Your task to perform on an android device: Go to battery settings Image 0: 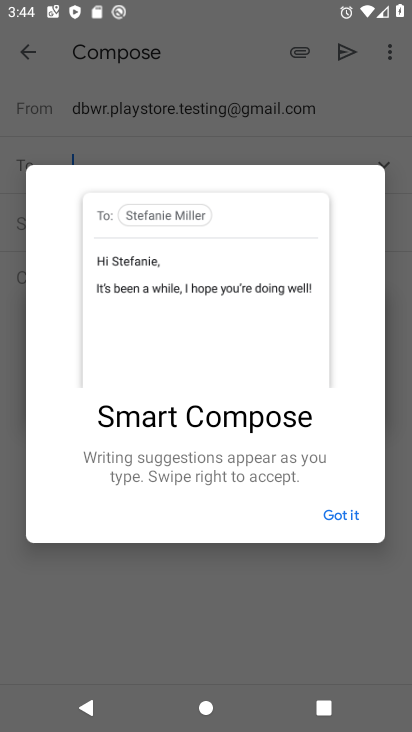
Step 0: press back button
Your task to perform on an android device: Go to battery settings Image 1: 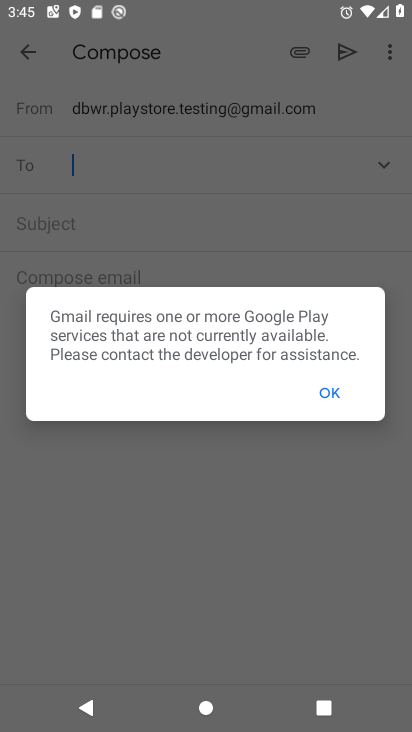
Step 1: press home button
Your task to perform on an android device: Go to battery settings Image 2: 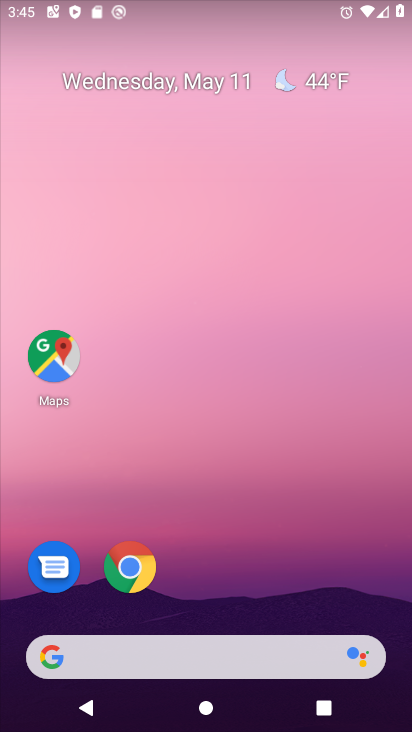
Step 2: drag from (249, 499) to (232, 79)
Your task to perform on an android device: Go to battery settings Image 3: 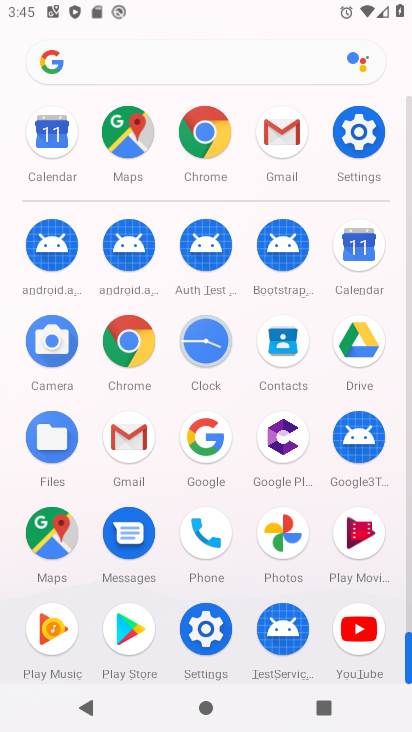
Step 3: drag from (14, 569) to (17, 274)
Your task to perform on an android device: Go to battery settings Image 4: 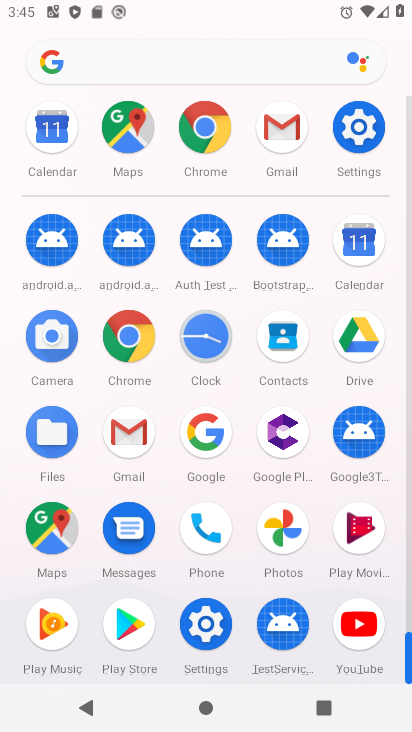
Step 4: click (205, 620)
Your task to perform on an android device: Go to battery settings Image 5: 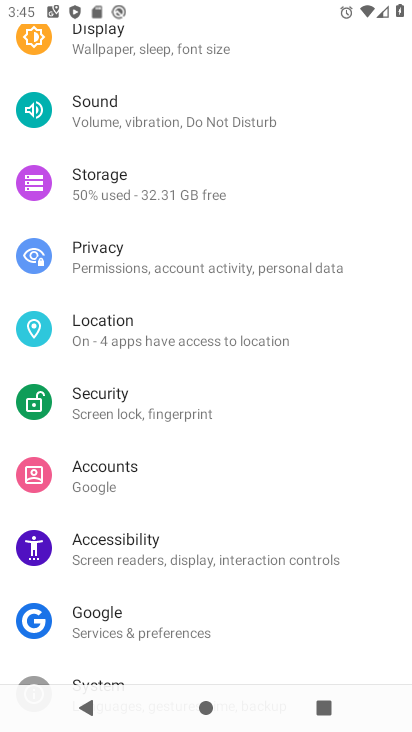
Step 5: drag from (180, 529) to (175, 223)
Your task to perform on an android device: Go to battery settings Image 6: 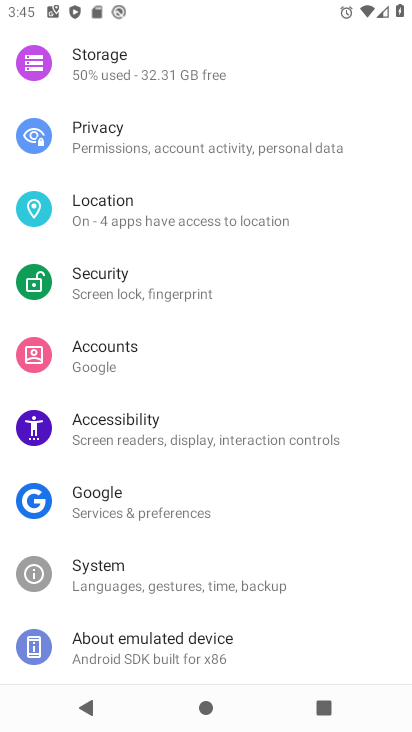
Step 6: drag from (176, 574) to (193, 288)
Your task to perform on an android device: Go to battery settings Image 7: 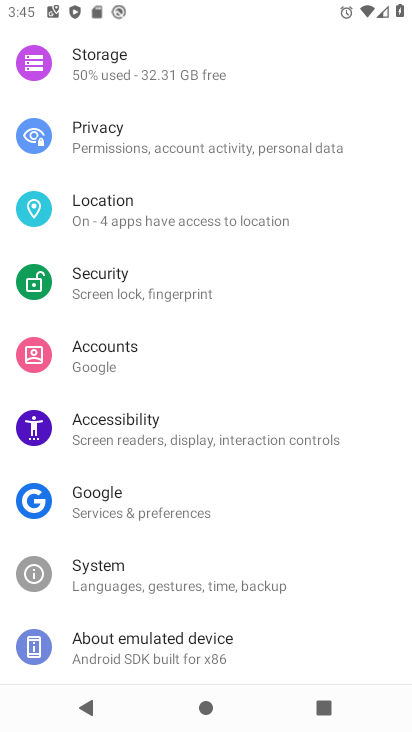
Step 7: drag from (186, 237) to (158, 469)
Your task to perform on an android device: Go to battery settings Image 8: 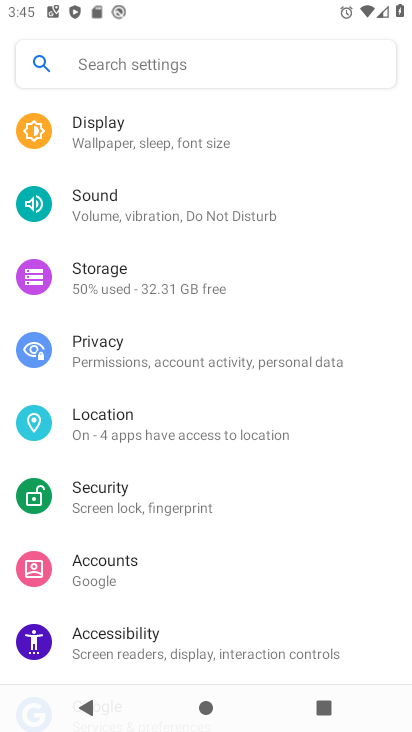
Step 8: drag from (210, 398) to (215, 143)
Your task to perform on an android device: Go to battery settings Image 9: 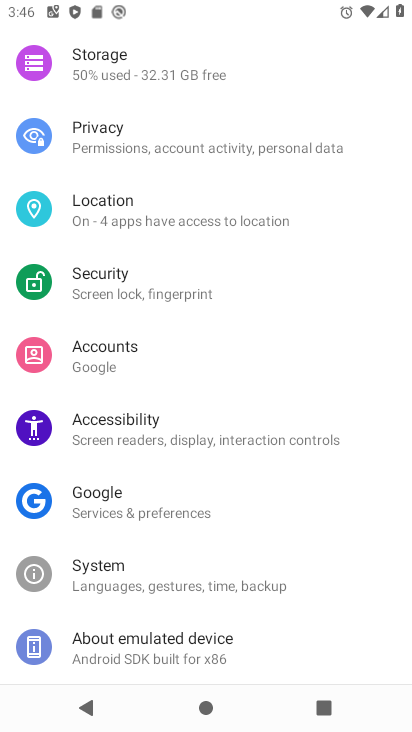
Step 9: drag from (190, 142) to (194, 532)
Your task to perform on an android device: Go to battery settings Image 10: 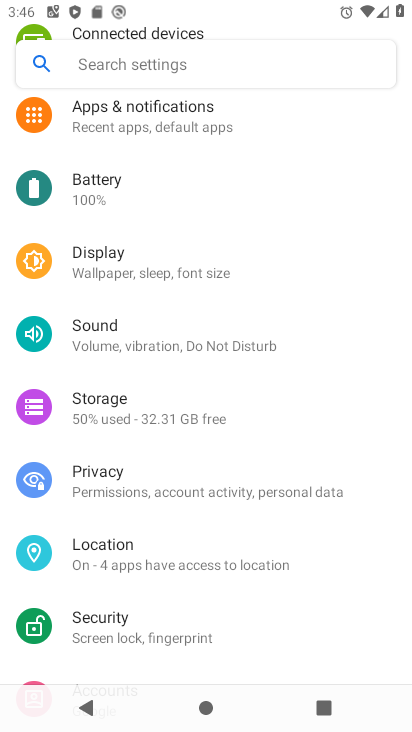
Step 10: click (142, 181)
Your task to perform on an android device: Go to battery settings Image 11: 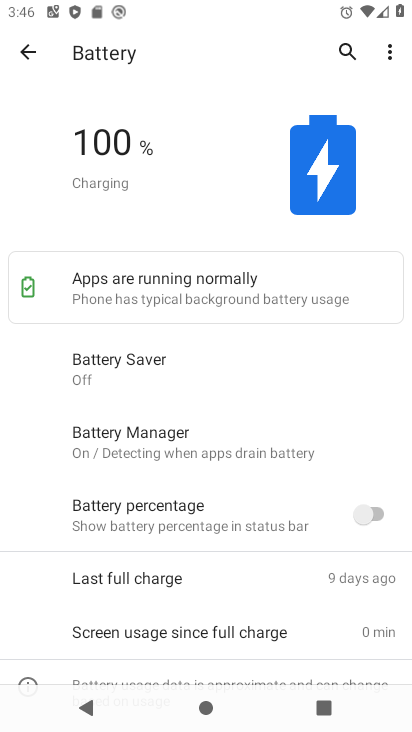
Step 11: task complete